Your task to perform on an android device: Open Youtube and go to "Your channel" Image 0: 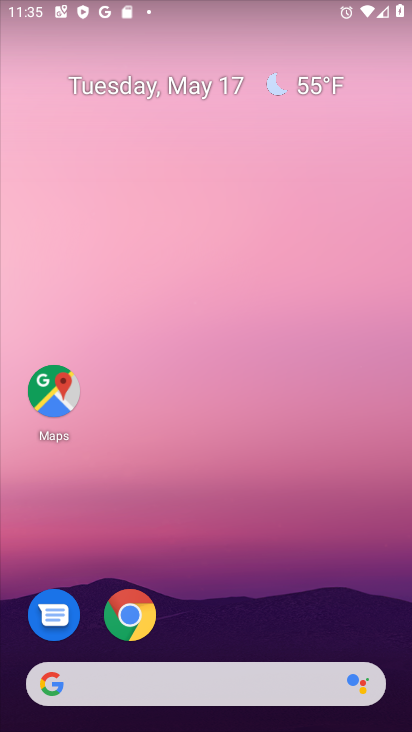
Step 0: drag from (274, 647) to (281, 117)
Your task to perform on an android device: Open Youtube and go to "Your channel" Image 1: 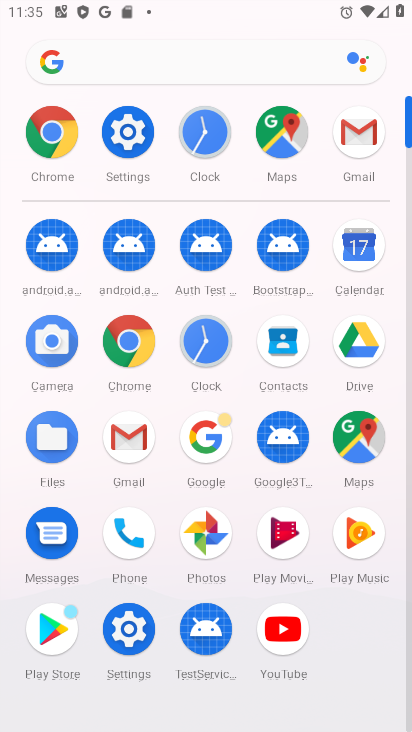
Step 1: click (286, 639)
Your task to perform on an android device: Open Youtube and go to "Your channel" Image 2: 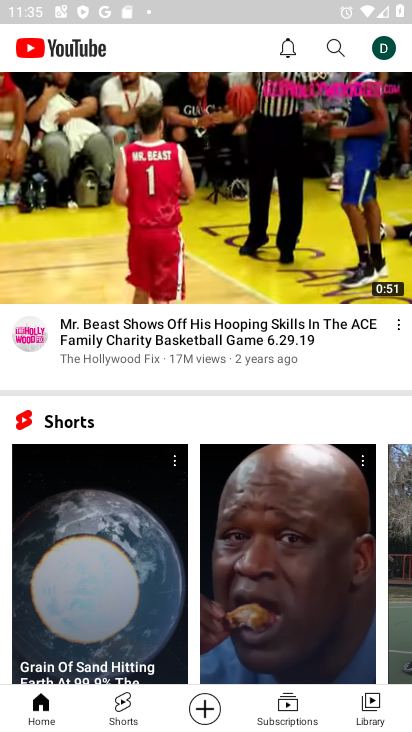
Step 2: click (389, 43)
Your task to perform on an android device: Open Youtube and go to "Your channel" Image 3: 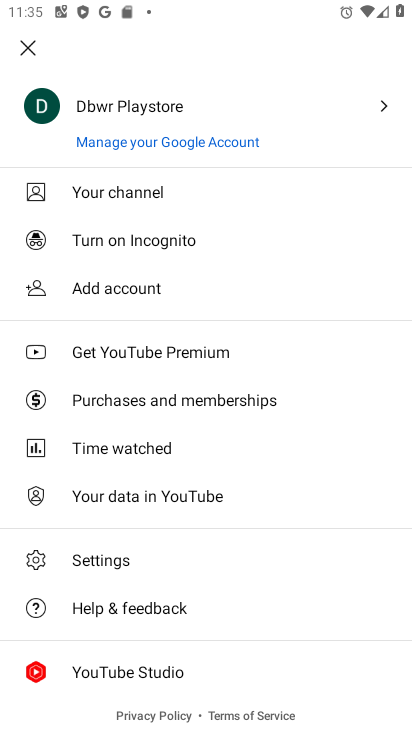
Step 3: click (116, 196)
Your task to perform on an android device: Open Youtube and go to "Your channel" Image 4: 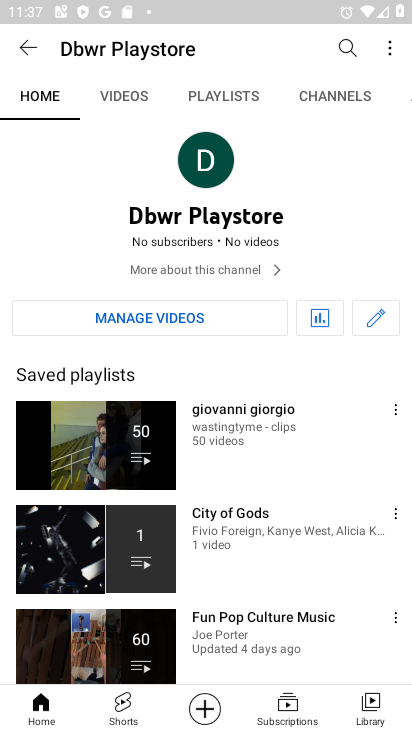
Step 4: task complete